Your task to perform on an android device: Open Google Chrome and open the bookmarks view Image 0: 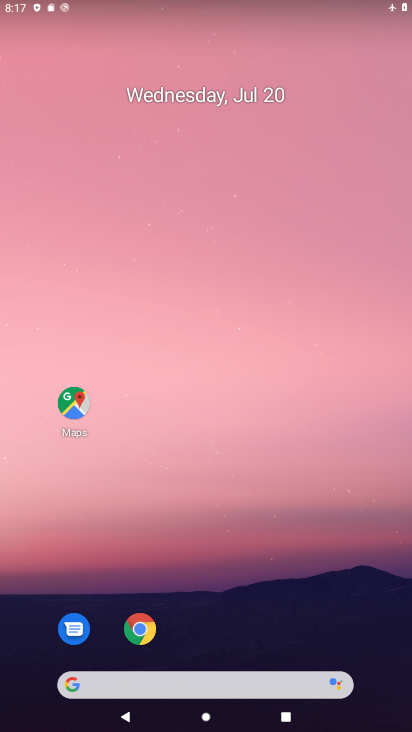
Step 0: drag from (264, 669) to (193, 201)
Your task to perform on an android device: Open Google Chrome and open the bookmarks view Image 1: 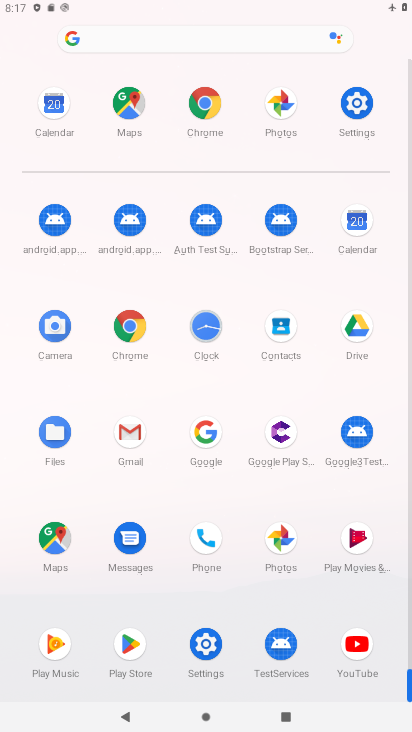
Step 1: click (196, 430)
Your task to perform on an android device: Open Google Chrome and open the bookmarks view Image 2: 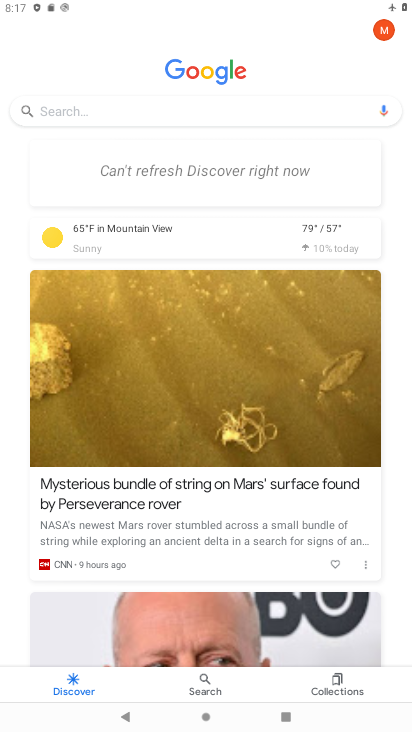
Step 2: press back button
Your task to perform on an android device: Open Google Chrome and open the bookmarks view Image 3: 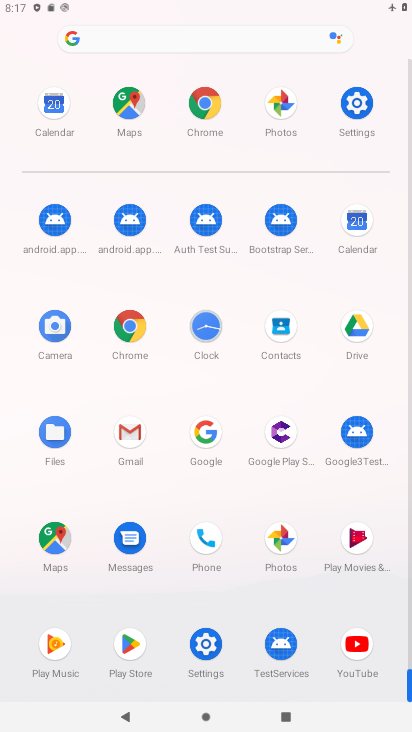
Step 3: click (200, 107)
Your task to perform on an android device: Open Google Chrome and open the bookmarks view Image 4: 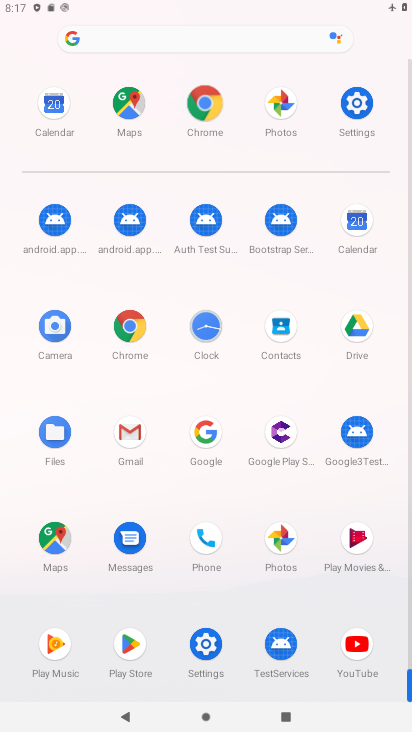
Step 4: click (201, 113)
Your task to perform on an android device: Open Google Chrome and open the bookmarks view Image 5: 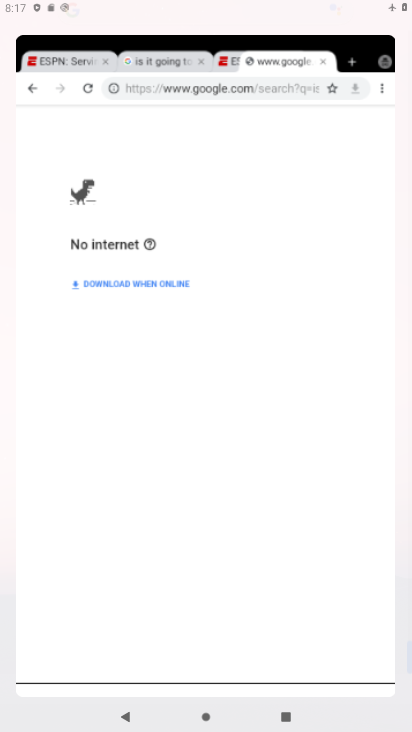
Step 5: click (201, 113)
Your task to perform on an android device: Open Google Chrome and open the bookmarks view Image 6: 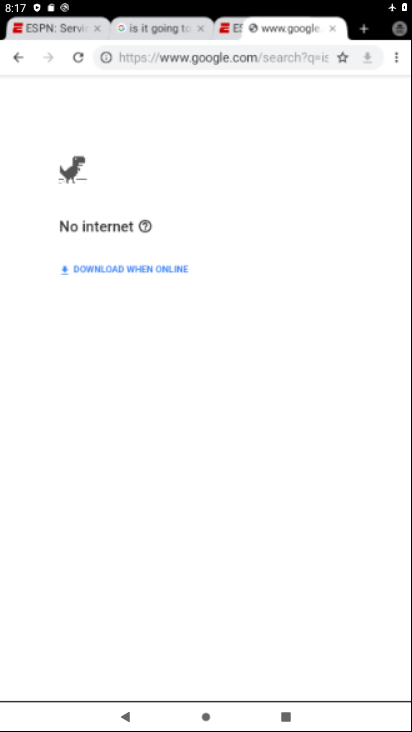
Step 6: click (202, 114)
Your task to perform on an android device: Open Google Chrome and open the bookmarks view Image 7: 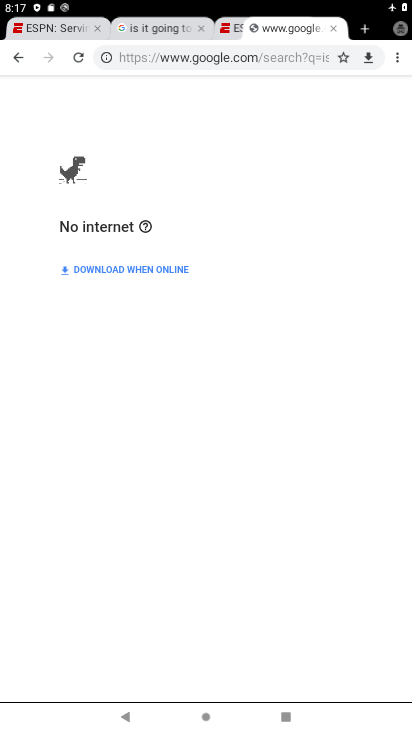
Step 7: drag from (398, 59) to (288, 115)
Your task to perform on an android device: Open Google Chrome and open the bookmarks view Image 8: 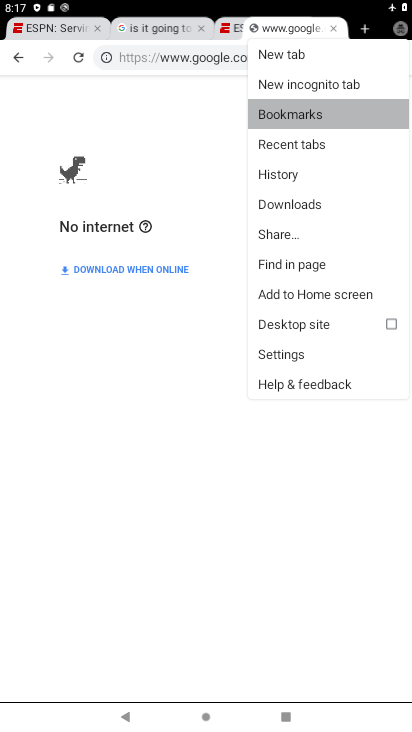
Step 8: click (283, 102)
Your task to perform on an android device: Open Google Chrome and open the bookmarks view Image 9: 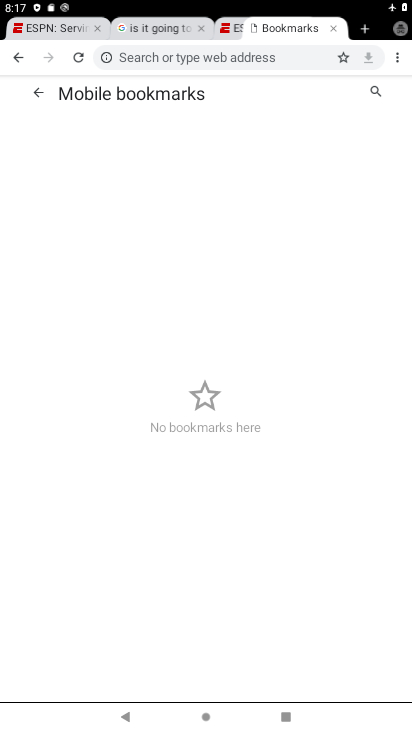
Step 9: task complete